Your task to perform on an android device: Is it going to rain this weekend? Image 0: 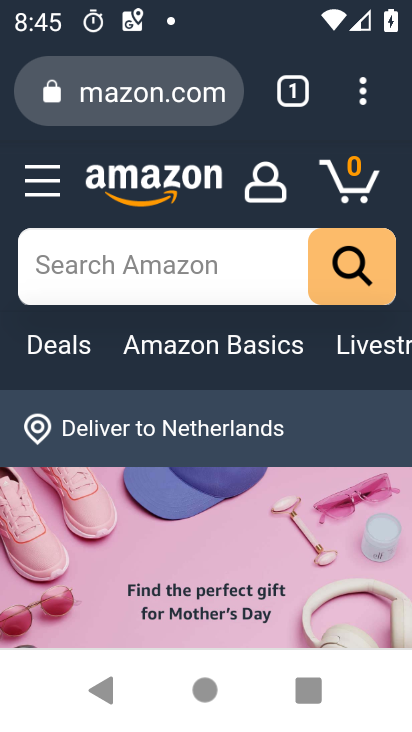
Step 0: press home button
Your task to perform on an android device: Is it going to rain this weekend? Image 1: 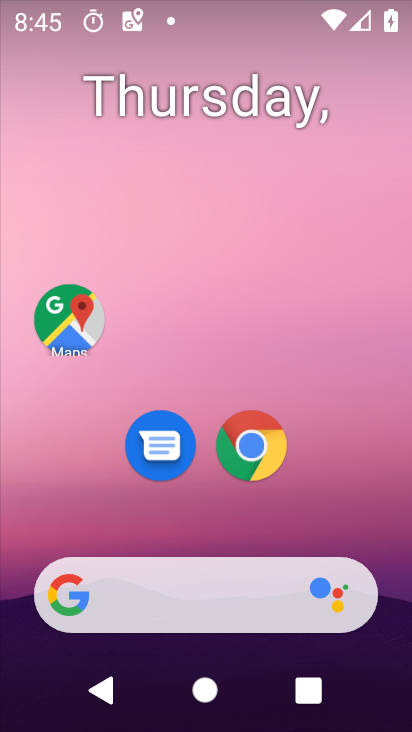
Step 1: click (156, 591)
Your task to perform on an android device: Is it going to rain this weekend? Image 2: 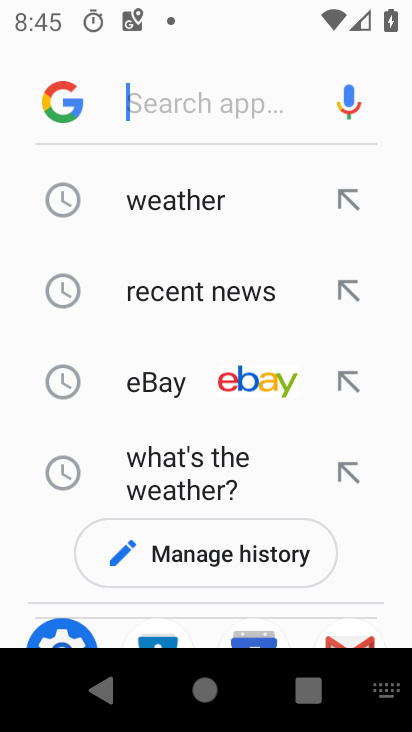
Step 2: click (162, 209)
Your task to perform on an android device: Is it going to rain this weekend? Image 3: 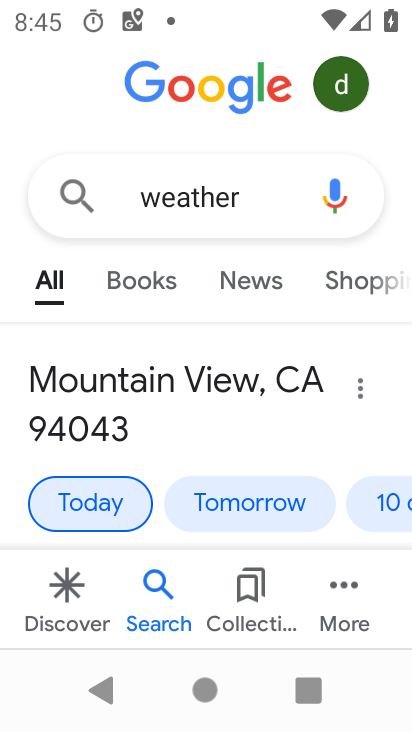
Step 3: task complete